Your task to perform on an android device: create a new album in the google photos Image 0: 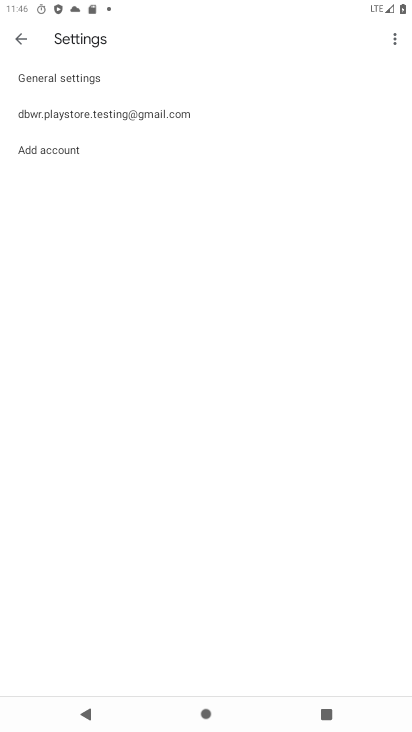
Step 0: press home button
Your task to perform on an android device: create a new album in the google photos Image 1: 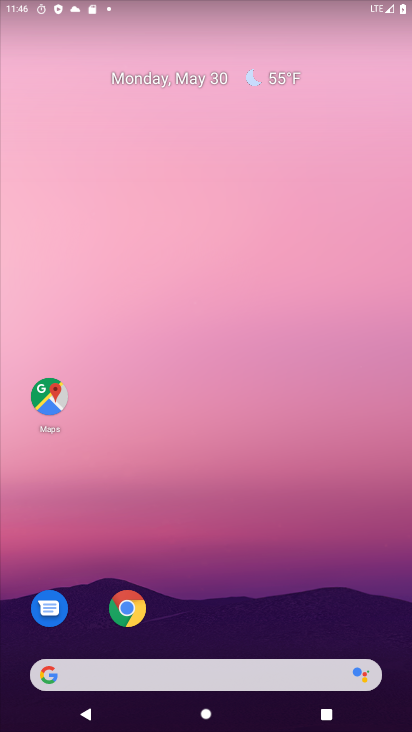
Step 1: drag from (280, 588) to (303, 20)
Your task to perform on an android device: create a new album in the google photos Image 2: 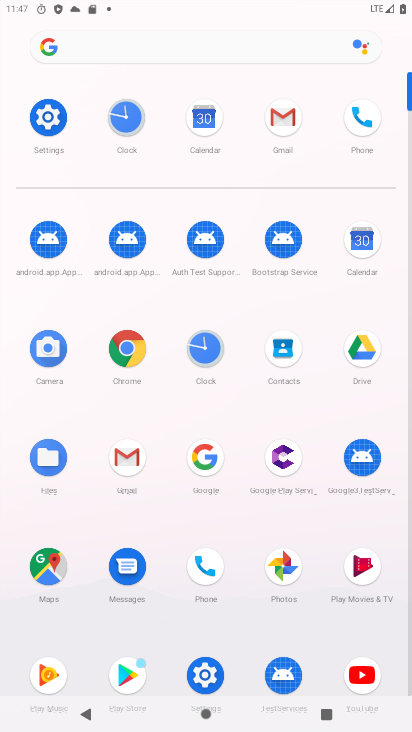
Step 2: click (283, 572)
Your task to perform on an android device: create a new album in the google photos Image 3: 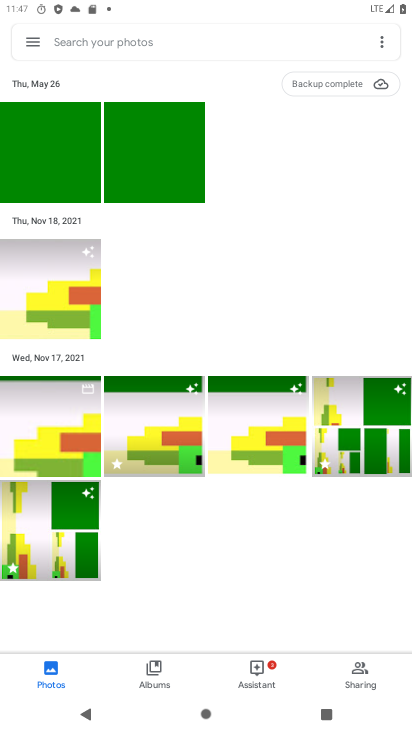
Step 3: click (150, 433)
Your task to perform on an android device: create a new album in the google photos Image 4: 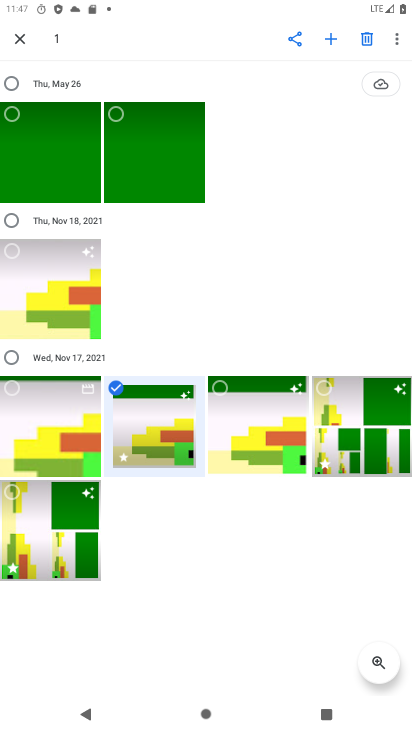
Step 4: click (323, 40)
Your task to perform on an android device: create a new album in the google photos Image 5: 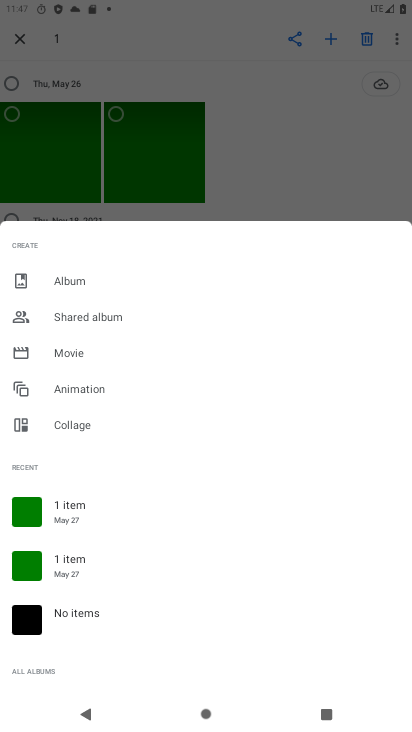
Step 5: click (58, 283)
Your task to perform on an android device: create a new album in the google photos Image 6: 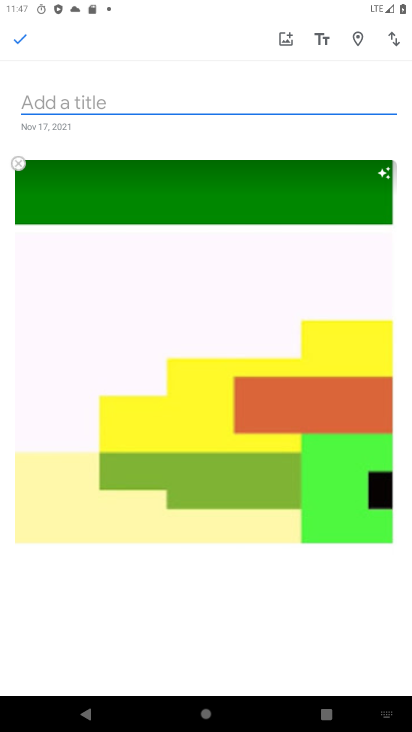
Step 6: click (60, 109)
Your task to perform on an android device: create a new album in the google photos Image 7: 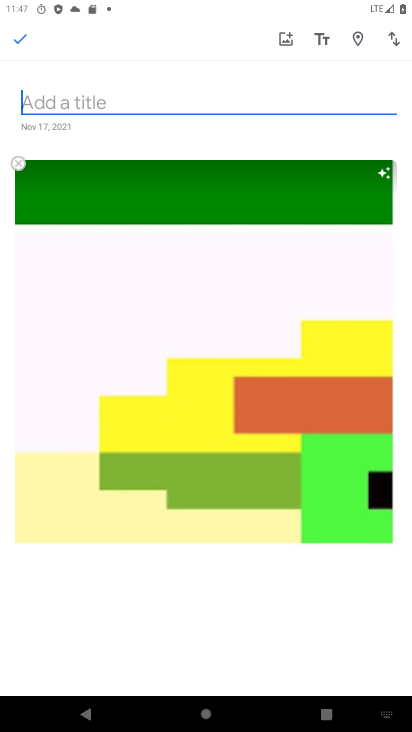
Step 7: type "new2"
Your task to perform on an android device: create a new album in the google photos Image 8: 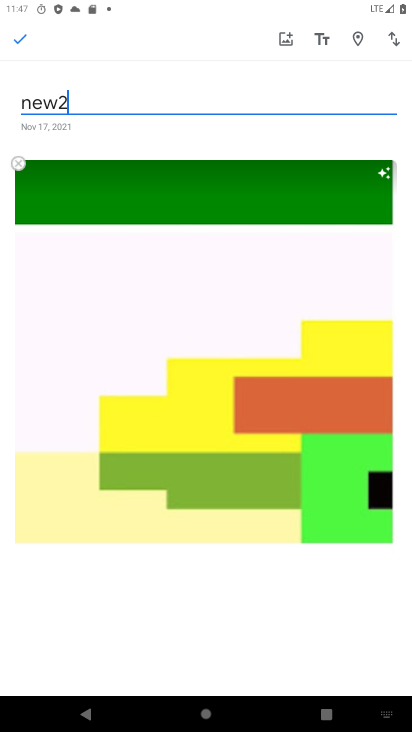
Step 8: click (9, 42)
Your task to perform on an android device: create a new album in the google photos Image 9: 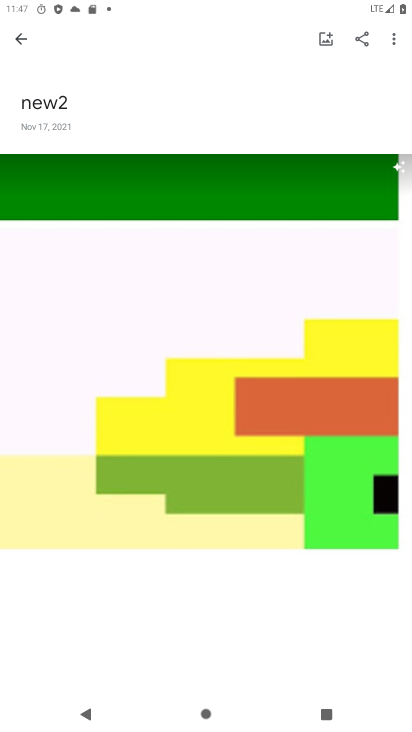
Step 9: task complete